Your task to perform on an android device: toggle priority inbox in the gmail app Image 0: 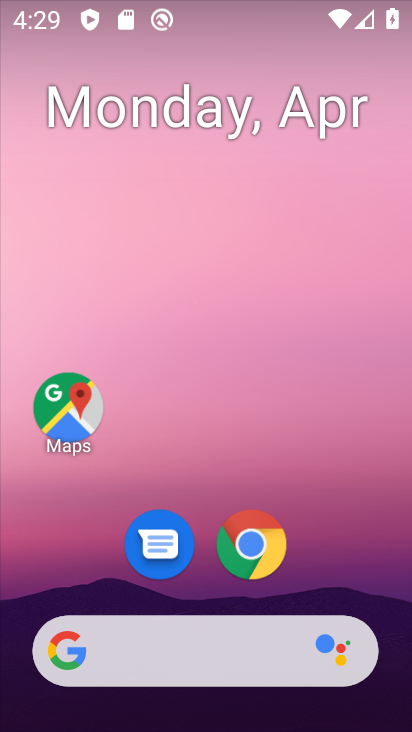
Step 0: drag from (364, 531) to (382, 145)
Your task to perform on an android device: toggle priority inbox in the gmail app Image 1: 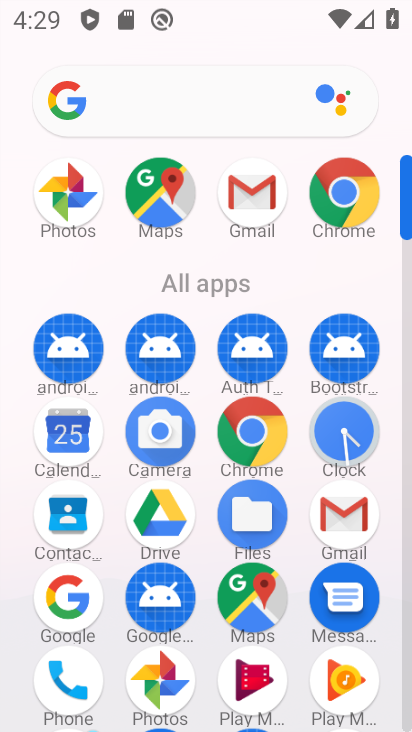
Step 1: click (359, 520)
Your task to perform on an android device: toggle priority inbox in the gmail app Image 2: 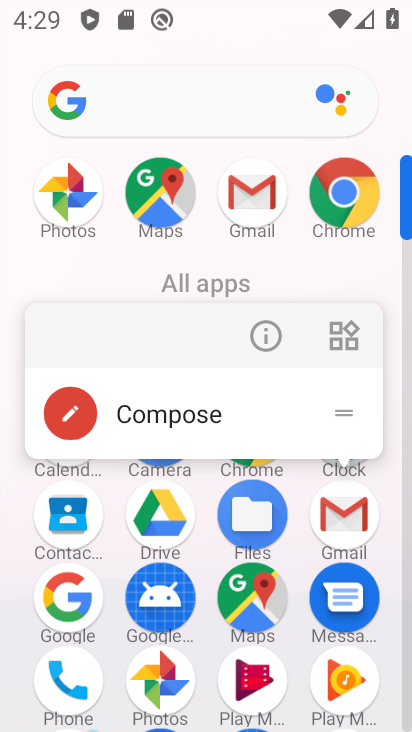
Step 2: click (360, 525)
Your task to perform on an android device: toggle priority inbox in the gmail app Image 3: 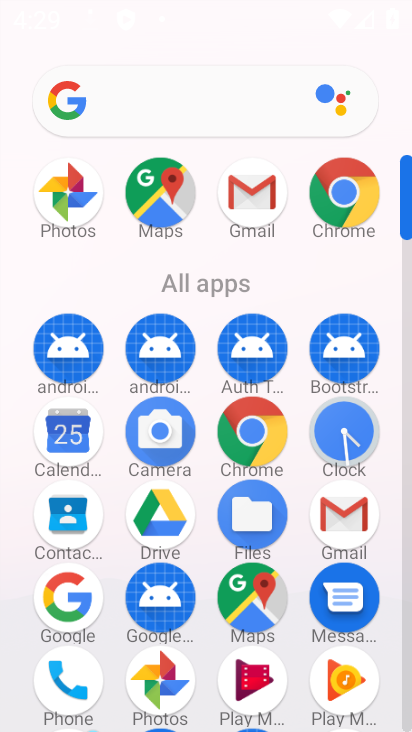
Step 3: click (345, 504)
Your task to perform on an android device: toggle priority inbox in the gmail app Image 4: 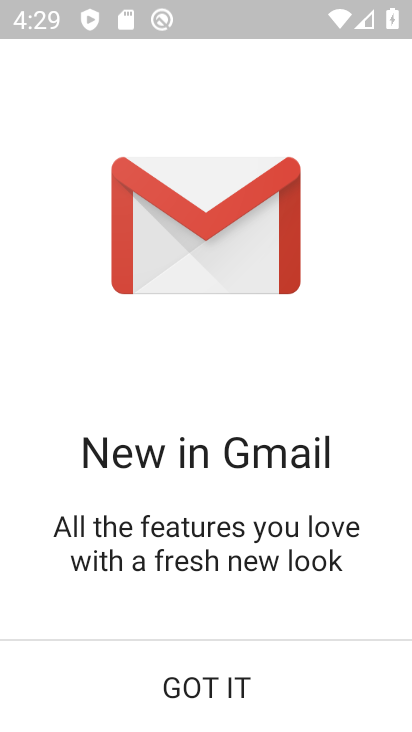
Step 4: click (250, 695)
Your task to perform on an android device: toggle priority inbox in the gmail app Image 5: 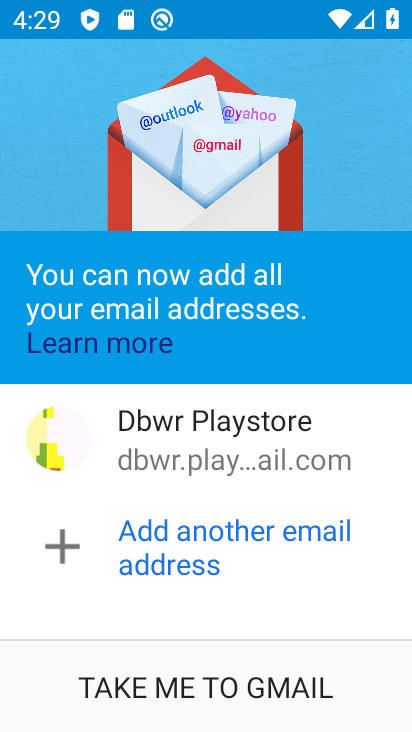
Step 5: click (250, 695)
Your task to perform on an android device: toggle priority inbox in the gmail app Image 6: 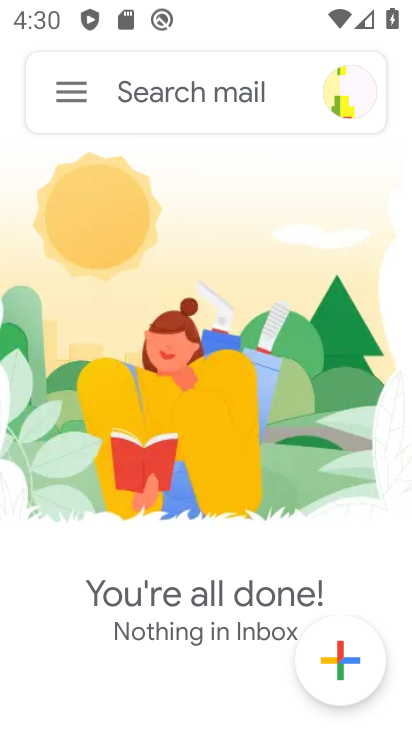
Step 6: click (81, 106)
Your task to perform on an android device: toggle priority inbox in the gmail app Image 7: 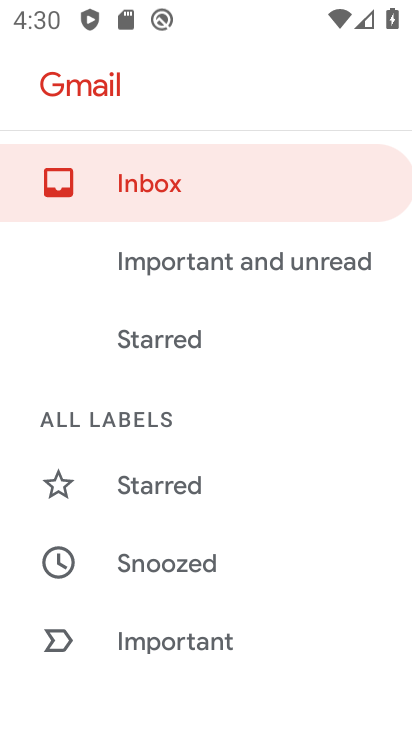
Step 7: drag from (351, 587) to (349, 443)
Your task to perform on an android device: toggle priority inbox in the gmail app Image 8: 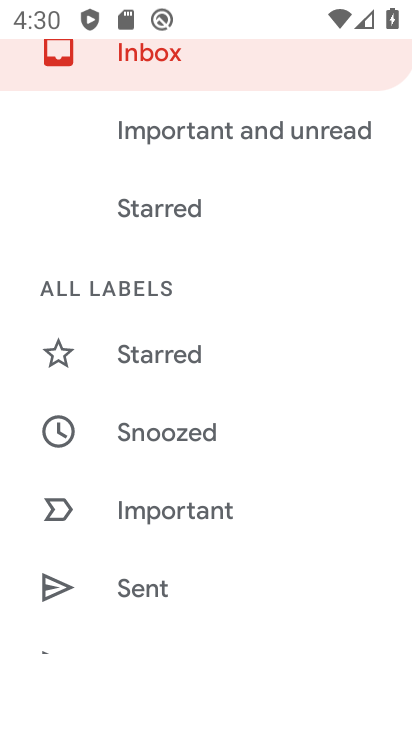
Step 8: drag from (338, 546) to (339, 457)
Your task to perform on an android device: toggle priority inbox in the gmail app Image 9: 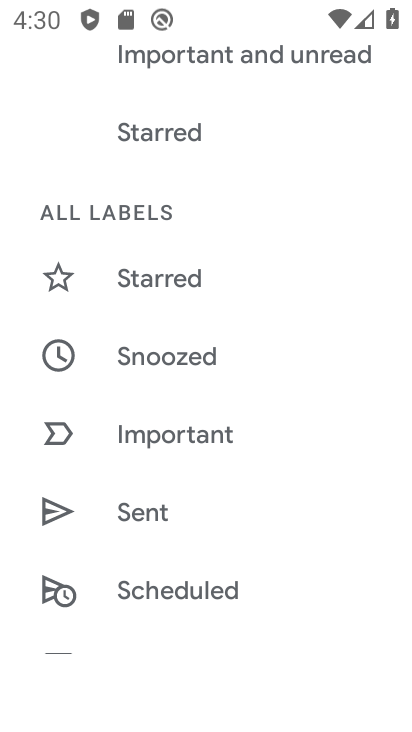
Step 9: drag from (315, 606) to (335, 391)
Your task to perform on an android device: toggle priority inbox in the gmail app Image 10: 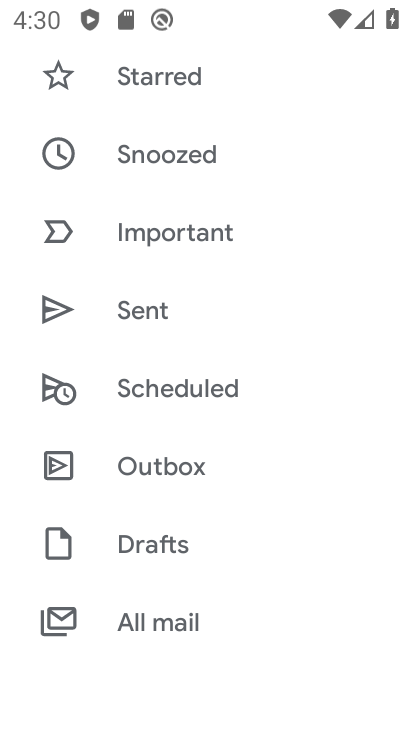
Step 10: drag from (318, 589) to (326, 425)
Your task to perform on an android device: toggle priority inbox in the gmail app Image 11: 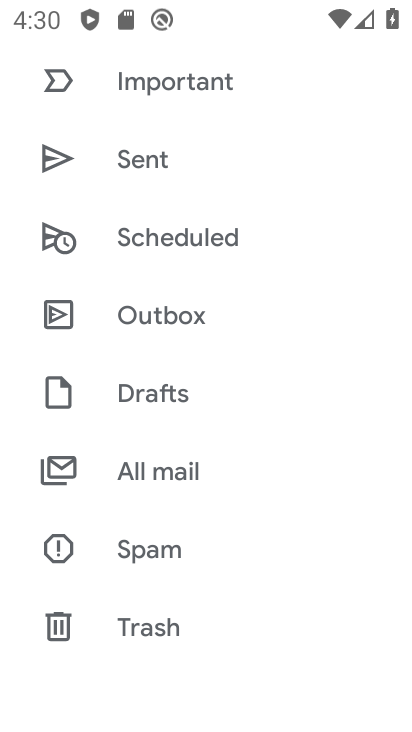
Step 11: drag from (308, 578) to (325, 417)
Your task to perform on an android device: toggle priority inbox in the gmail app Image 12: 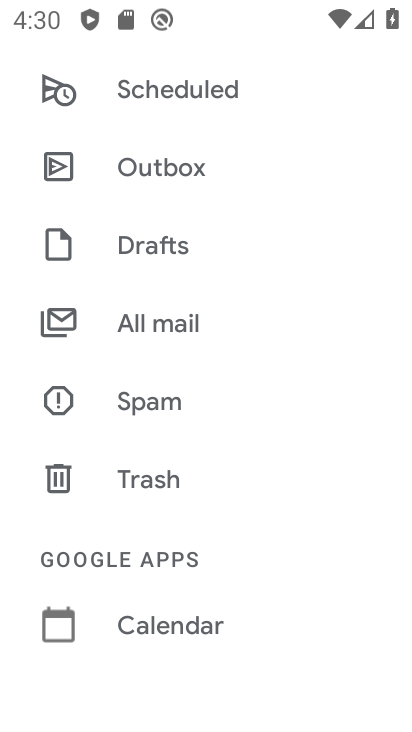
Step 12: drag from (304, 583) to (337, 430)
Your task to perform on an android device: toggle priority inbox in the gmail app Image 13: 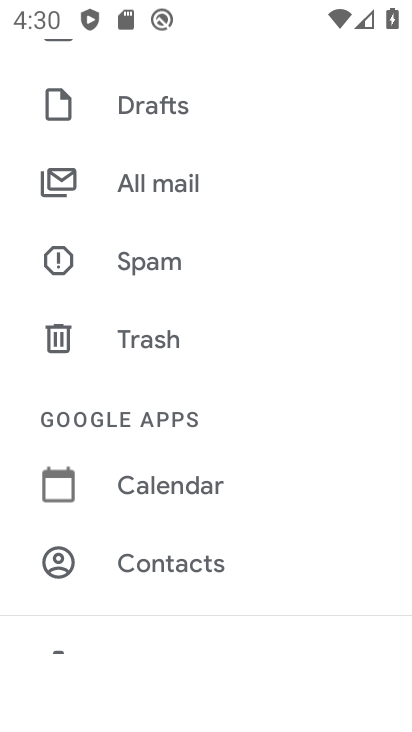
Step 13: drag from (302, 575) to (330, 456)
Your task to perform on an android device: toggle priority inbox in the gmail app Image 14: 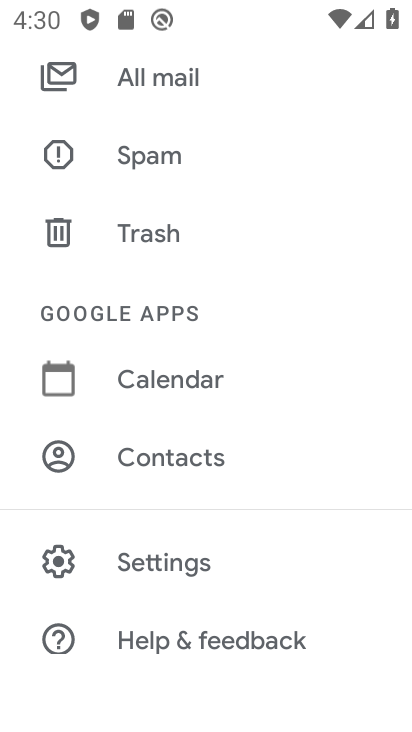
Step 14: click (201, 573)
Your task to perform on an android device: toggle priority inbox in the gmail app Image 15: 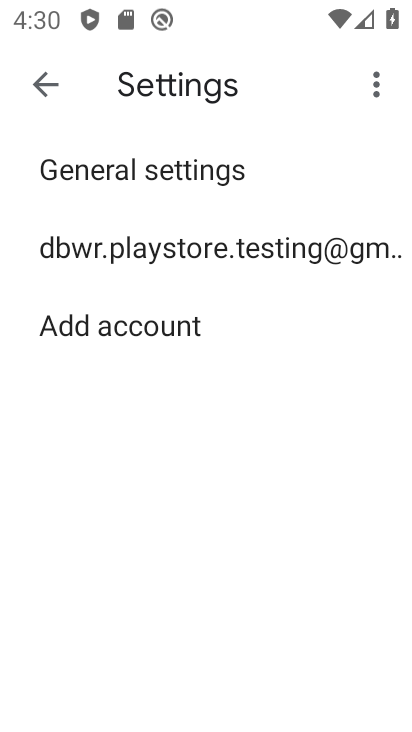
Step 15: click (179, 259)
Your task to perform on an android device: toggle priority inbox in the gmail app Image 16: 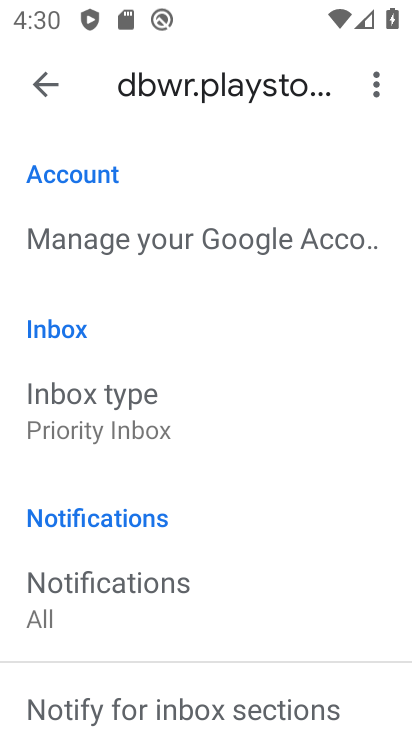
Step 16: task complete